Your task to perform on an android device: search for starred emails in the gmail app Image 0: 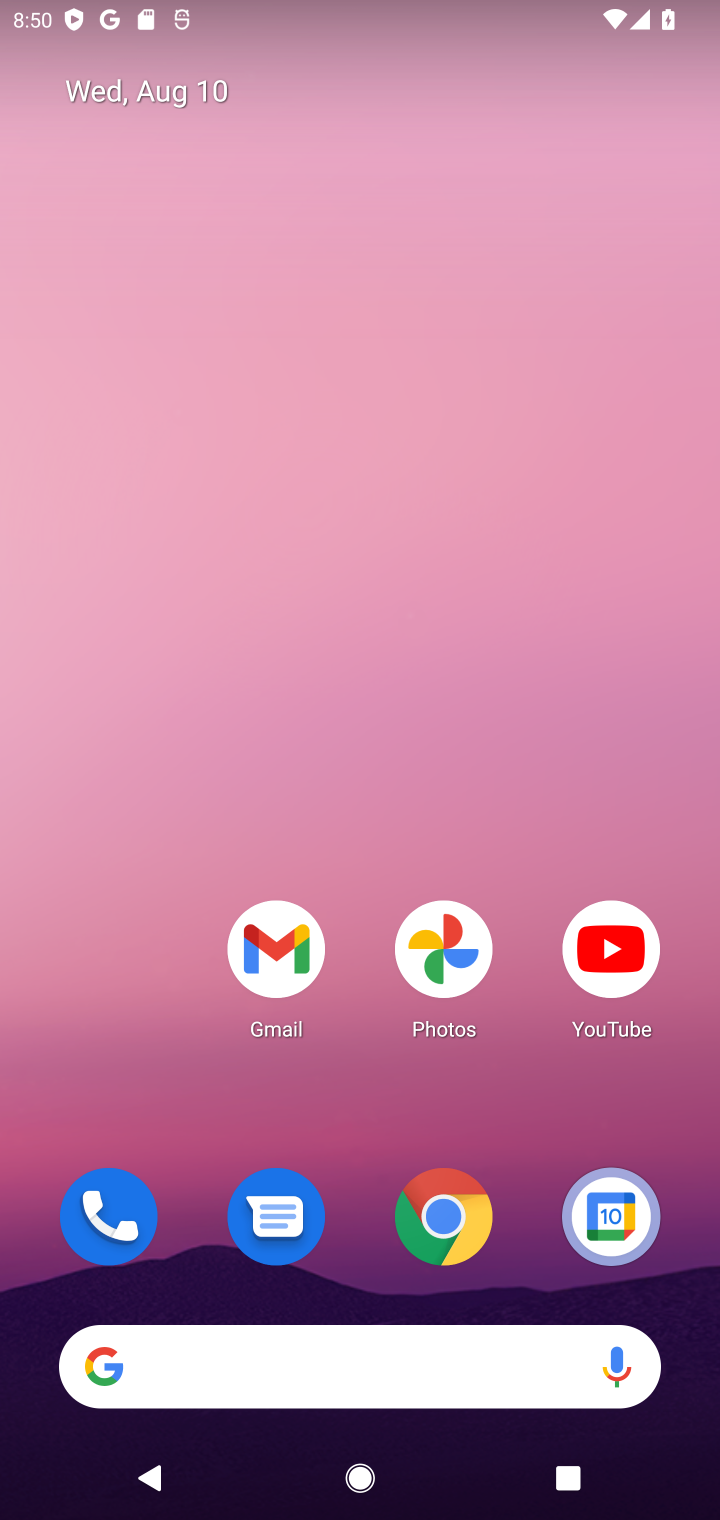
Step 0: click (278, 929)
Your task to perform on an android device: search for starred emails in the gmail app Image 1: 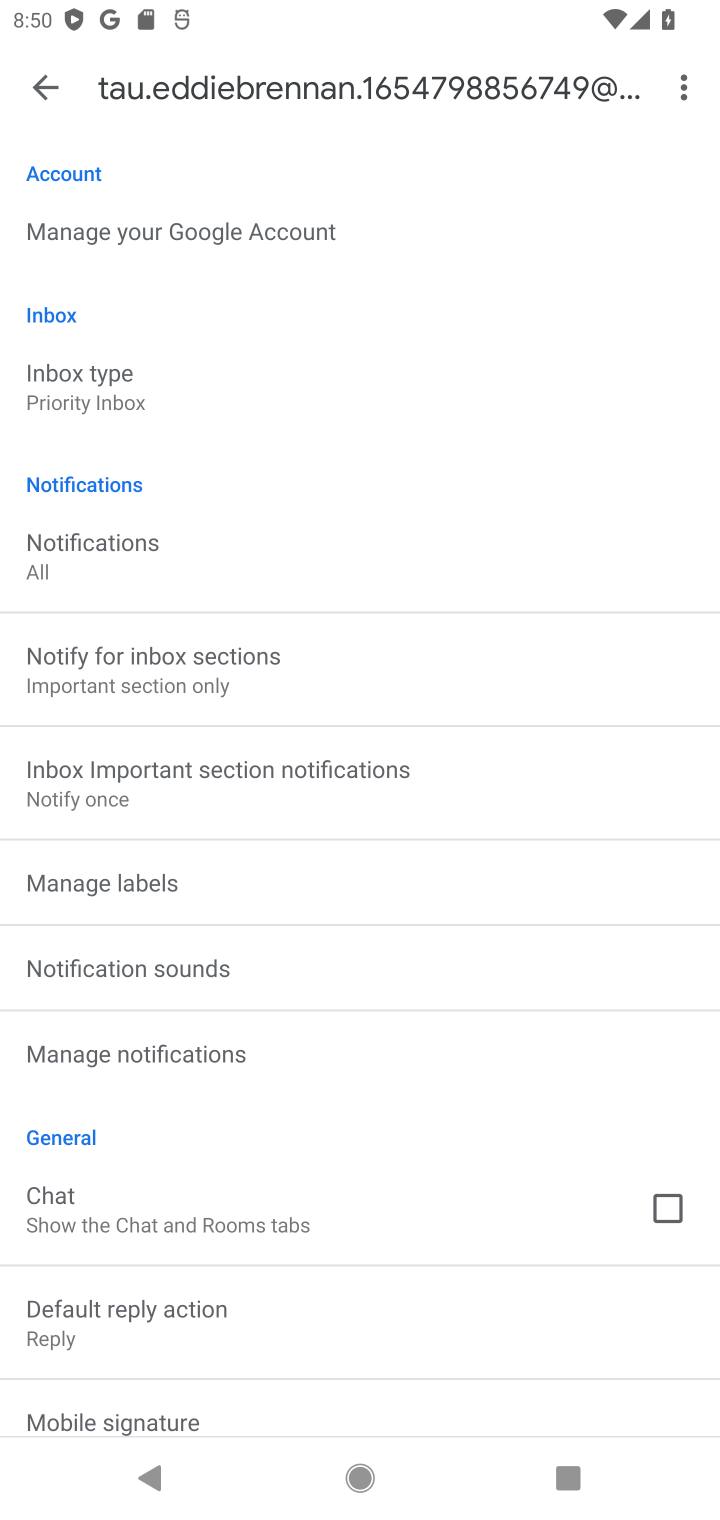
Step 1: click (40, 81)
Your task to perform on an android device: search for starred emails in the gmail app Image 2: 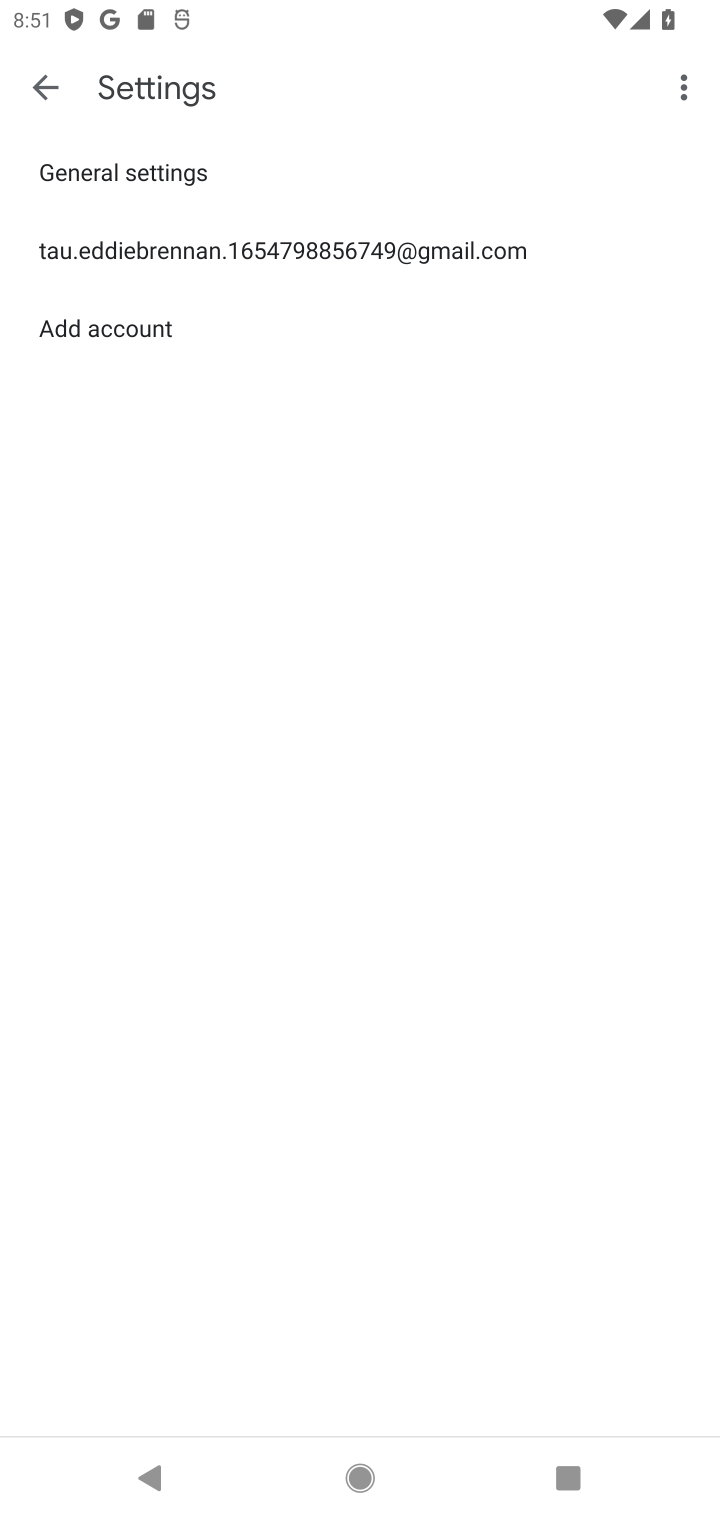
Step 2: click (58, 109)
Your task to perform on an android device: search for starred emails in the gmail app Image 3: 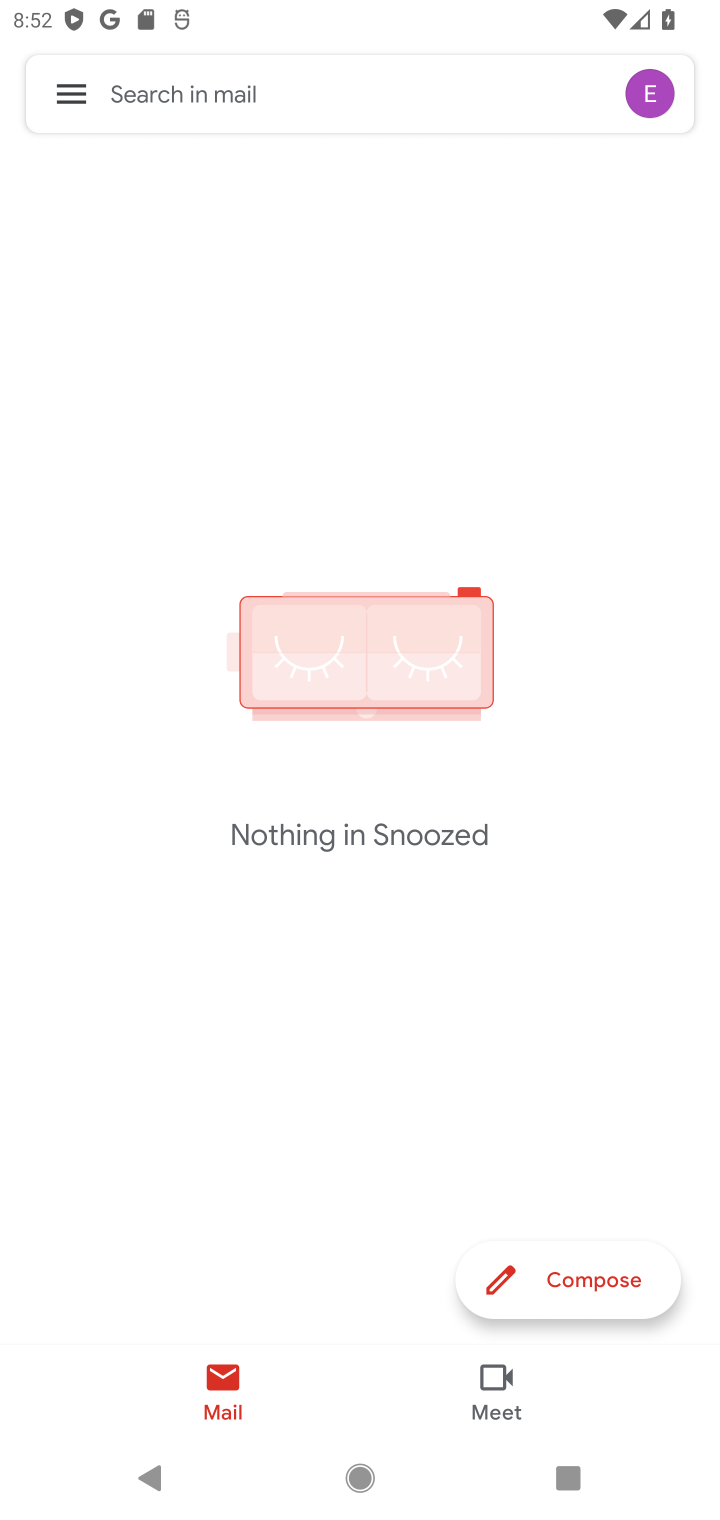
Step 3: click (67, 102)
Your task to perform on an android device: search for starred emails in the gmail app Image 4: 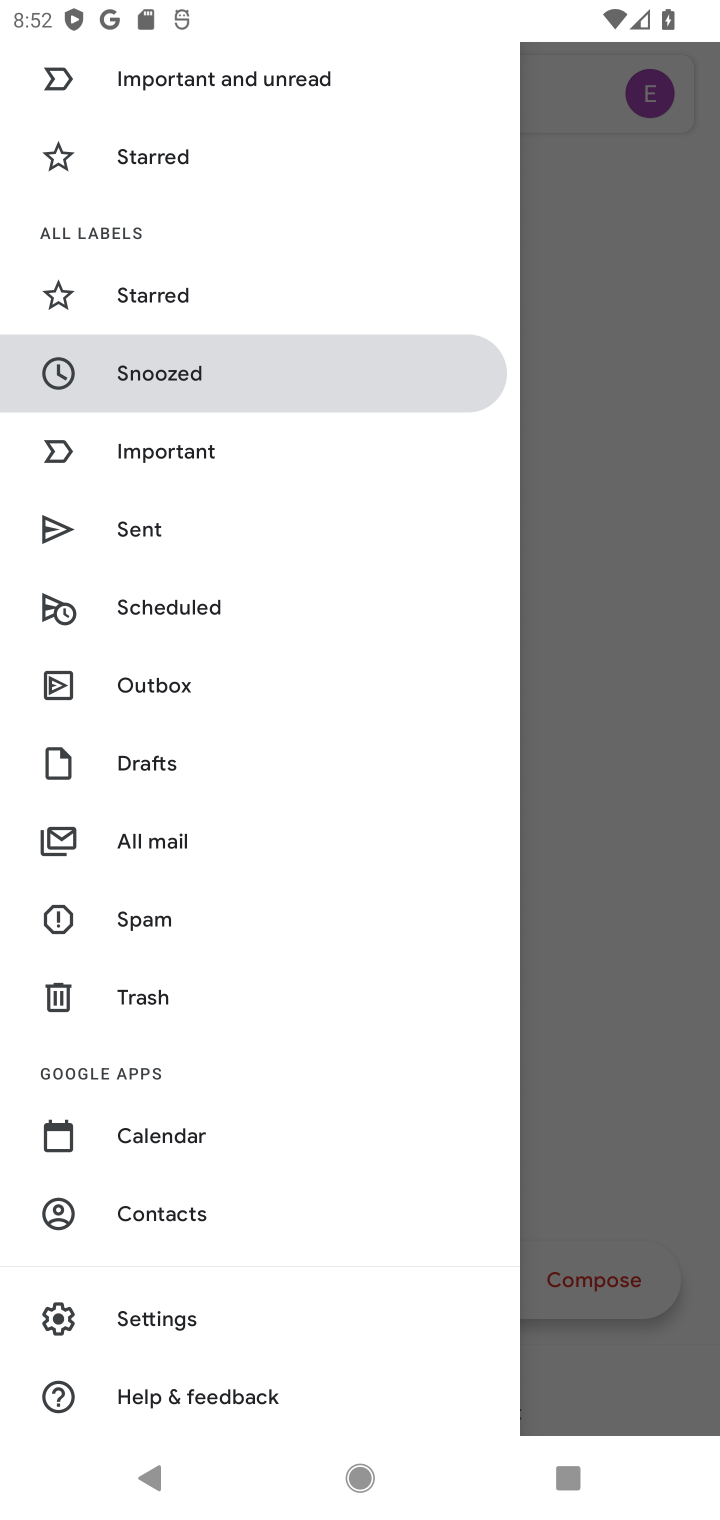
Step 4: click (192, 283)
Your task to perform on an android device: search for starred emails in the gmail app Image 5: 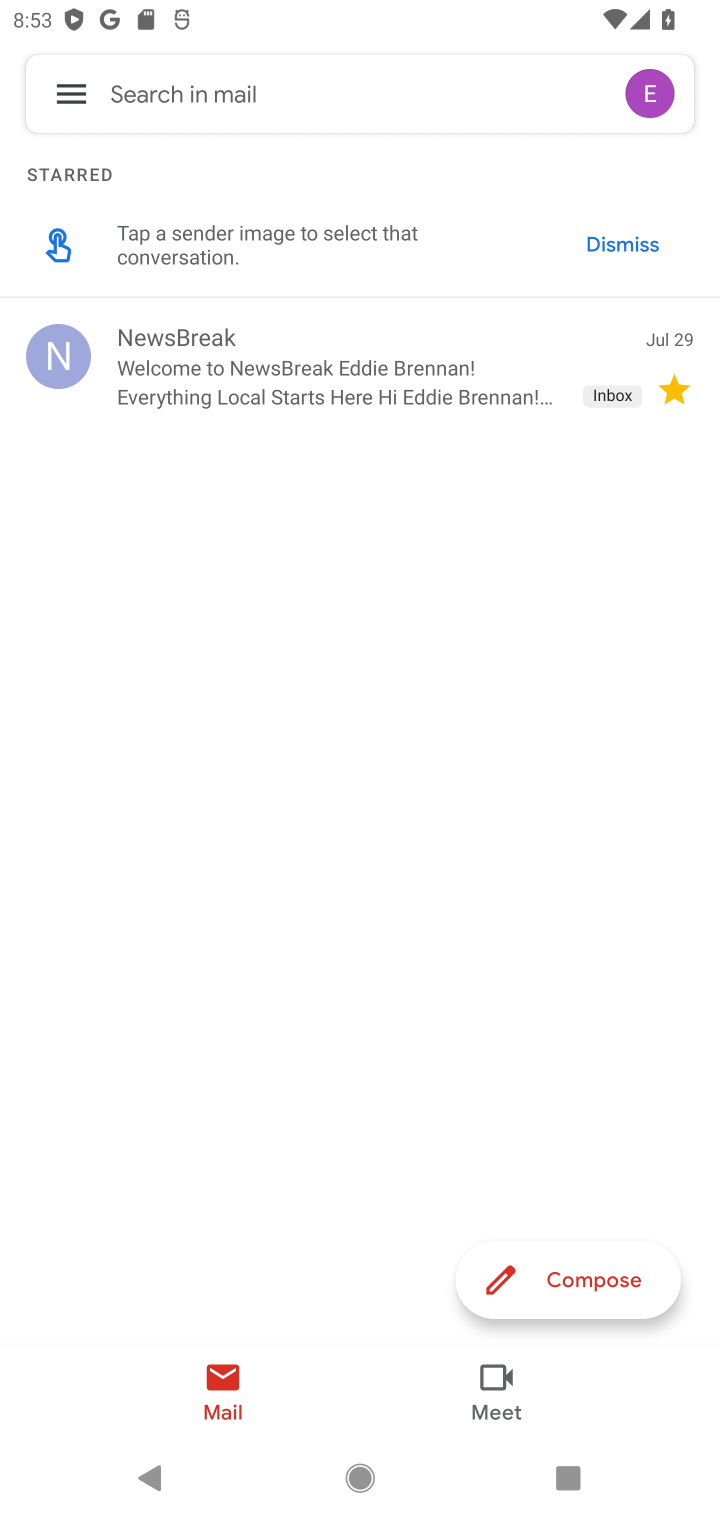
Step 5: task complete